Your task to perform on an android device: Search for vegetarian restaurants on Maps Image 0: 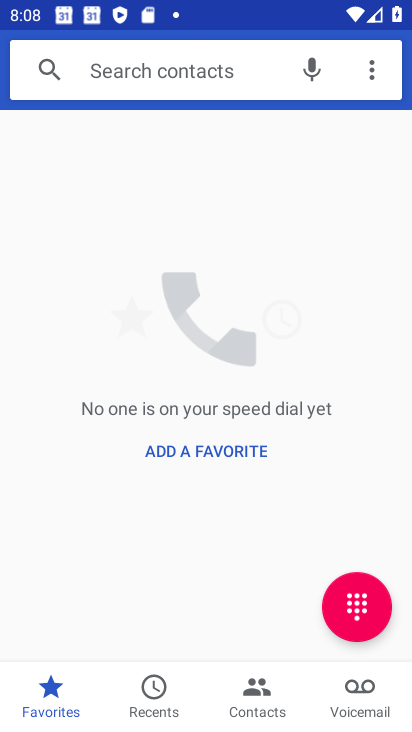
Step 0: press home button
Your task to perform on an android device: Search for vegetarian restaurants on Maps Image 1: 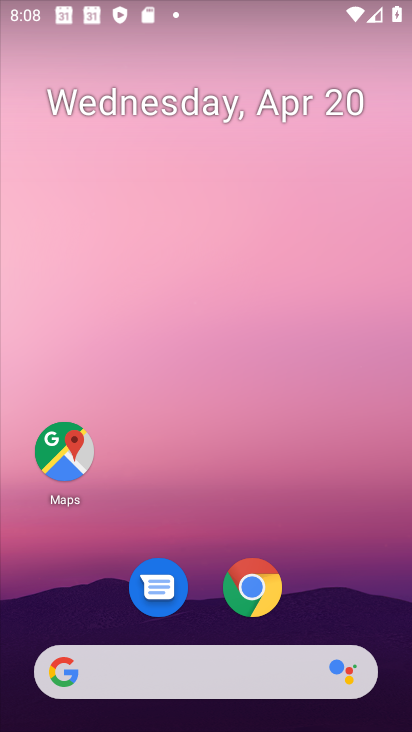
Step 1: drag from (353, 598) to (352, 210)
Your task to perform on an android device: Search for vegetarian restaurants on Maps Image 2: 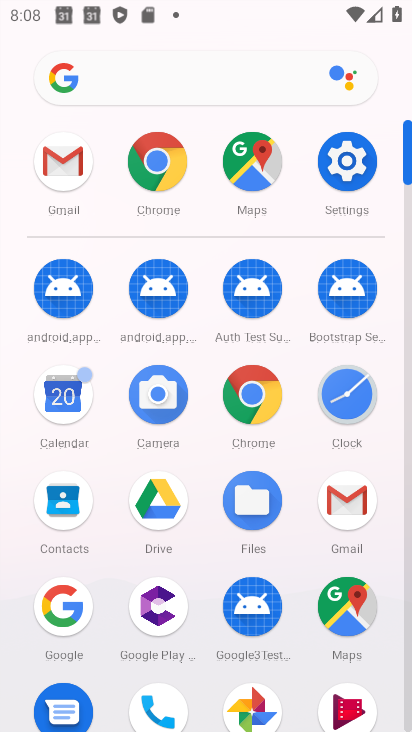
Step 2: click (356, 609)
Your task to perform on an android device: Search for vegetarian restaurants on Maps Image 3: 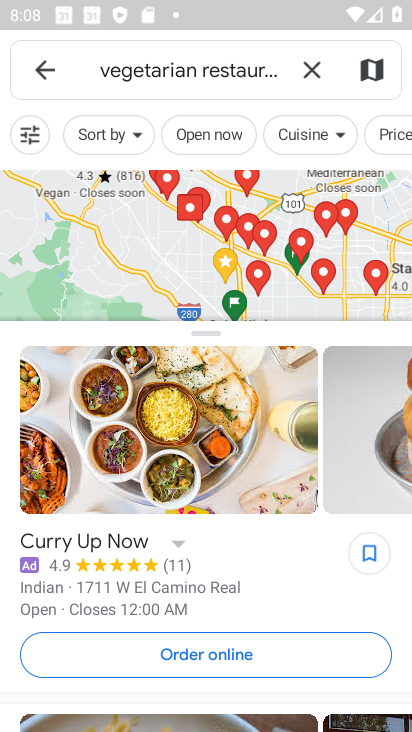
Step 3: task complete